Your task to perform on an android device: snooze an email in the gmail app Image 0: 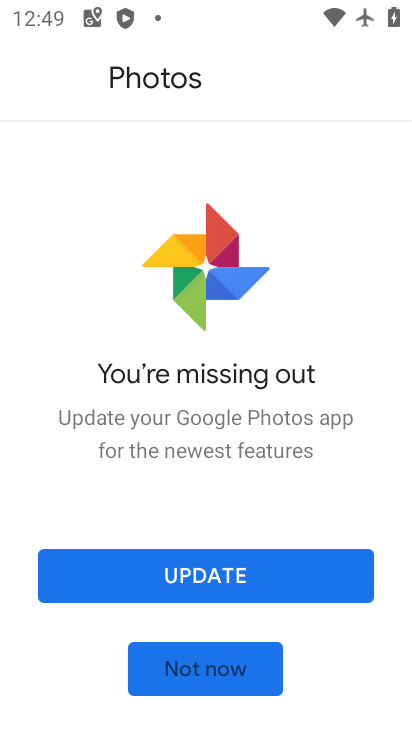
Step 0: press home button
Your task to perform on an android device: snooze an email in the gmail app Image 1: 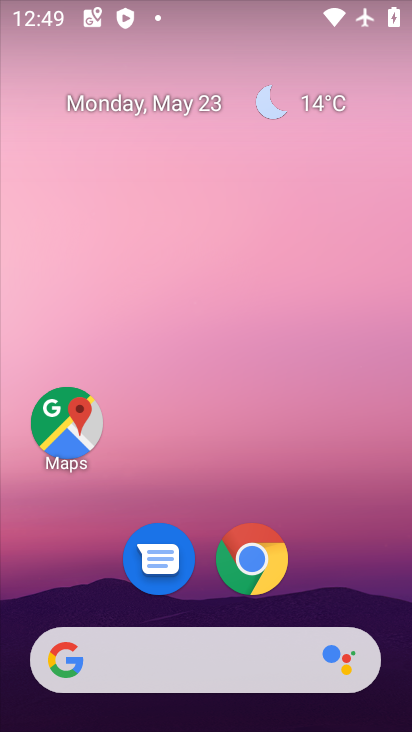
Step 1: drag from (358, 615) to (338, 3)
Your task to perform on an android device: snooze an email in the gmail app Image 2: 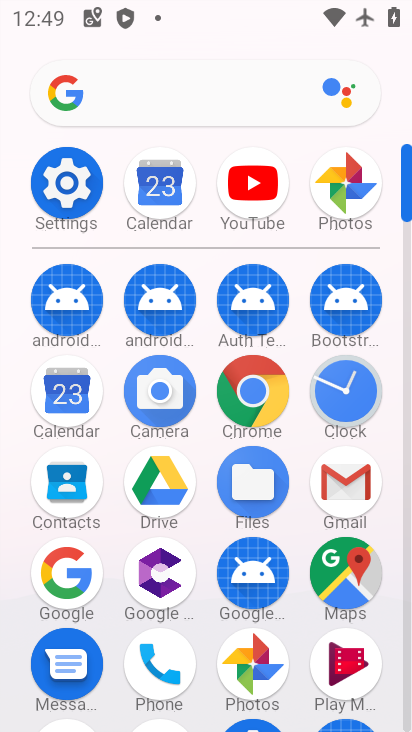
Step 2: click (343, 488)
Your task to perform on an android device: snooze an email in the gmail app Image 3: 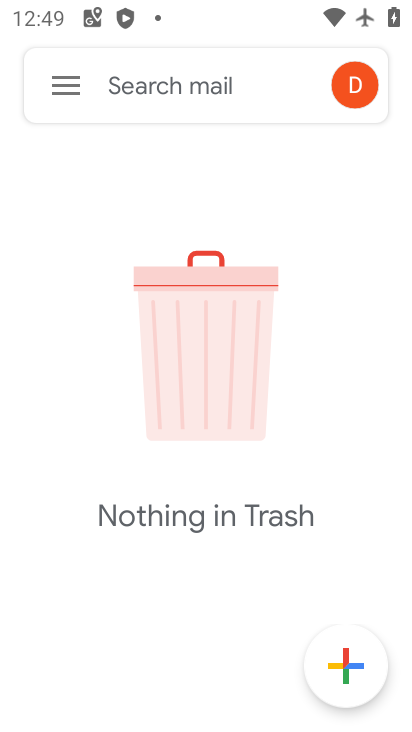
Step 3: click (74, 96)
Your task to perform on an android device: snooze an email in the gmail app Image 4: 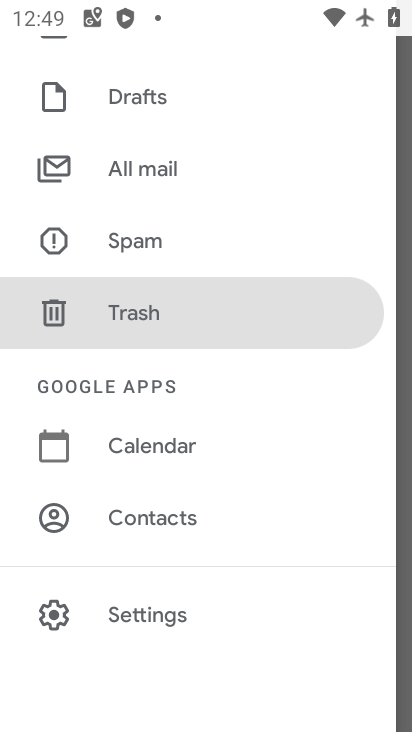
Step 4: click (139, 172)
Your task to perform on an android device: snooze an email in the gmail app Image 5: 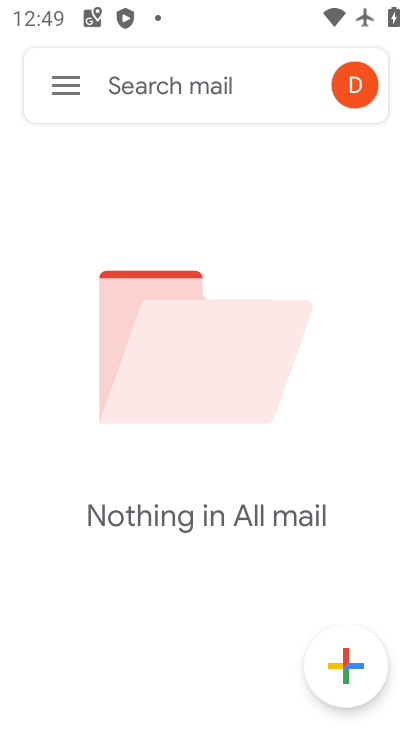
Step 5: task complete